Your task to perform on an android device: Open settings Image 0: 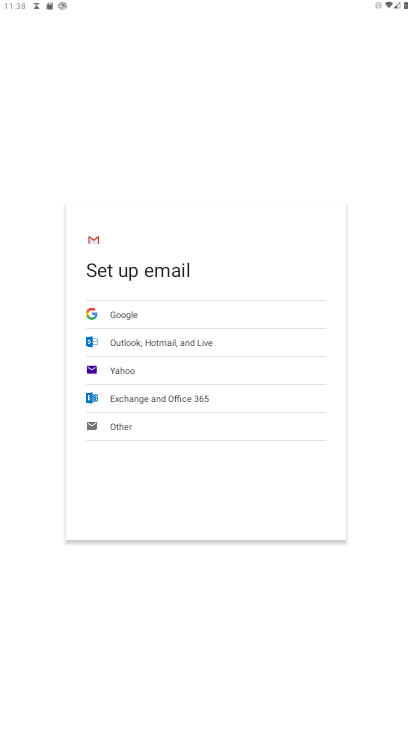
Step 0: press home button
Your task to perform on an android device: Open settings Image 1: 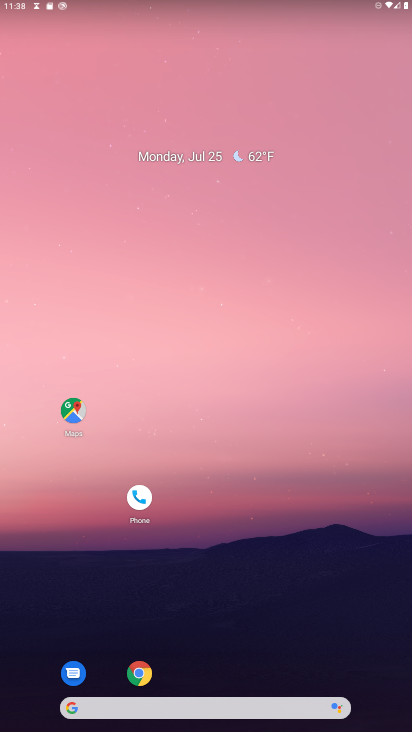
Step 1: drag from (232, 678) to (250, 72)
Your task to perform on an android device: Open settings Image 2: 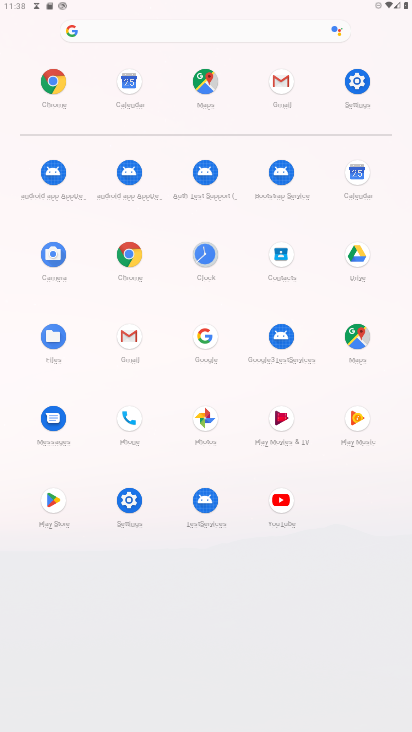
Step 2: click (353, 90)
Your task to perform on an android device: Open settings Image 3: 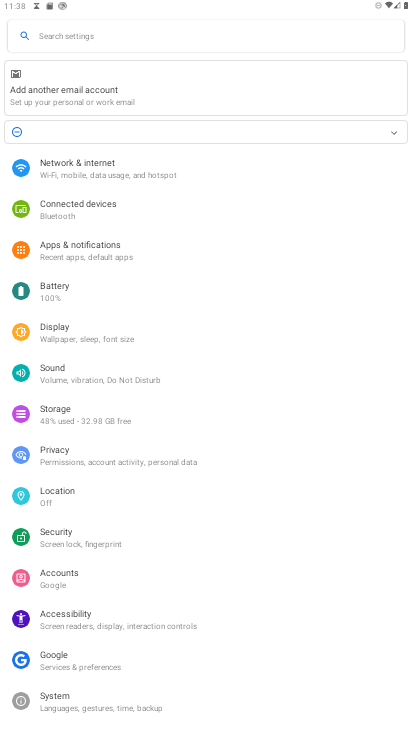
Step 3: task complete